Your task to perform on an android device: Open privacy settings Image 0: 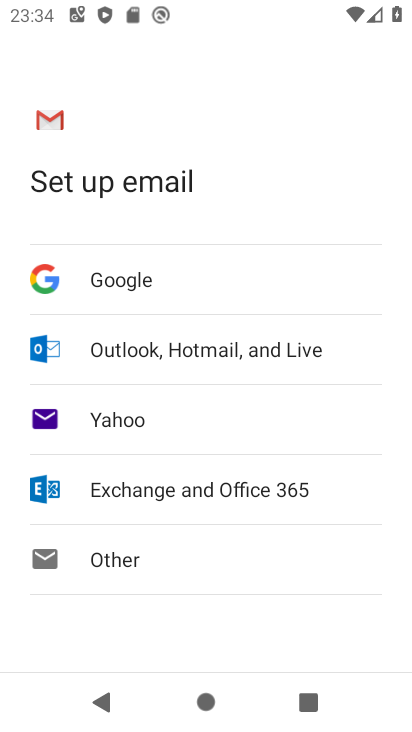
Step 0: press home button
Your task to perform on an android device: Open privacy settings Image 1: 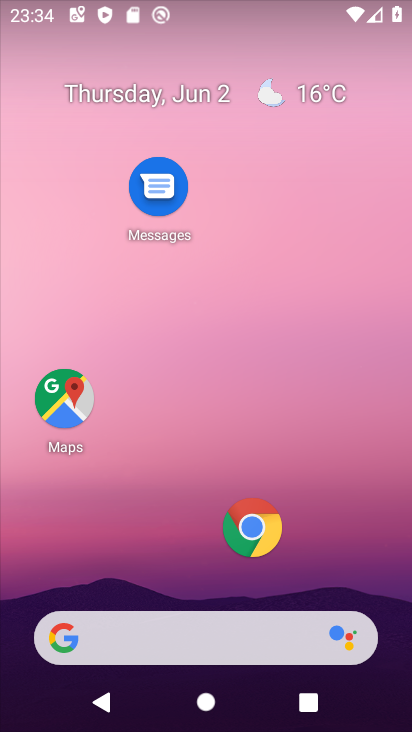
Step 1: drag from (301, 588) to (364, 45)
Your task to perform on an android device: Open privacy settings Image 2: 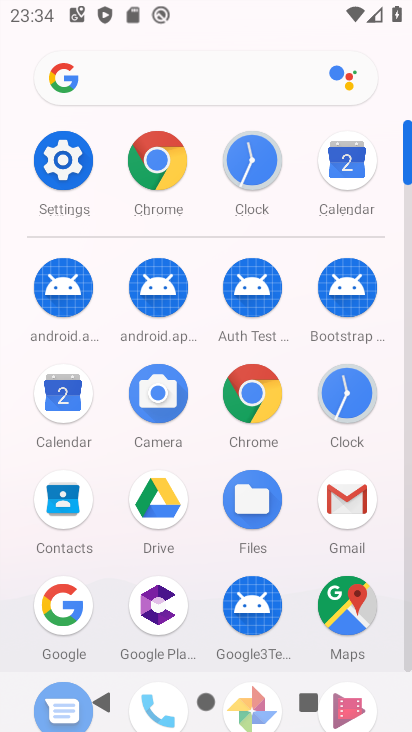
Step 2: click (59, 152)
Your task to perform on an android device: Open privacy settings Image 3: 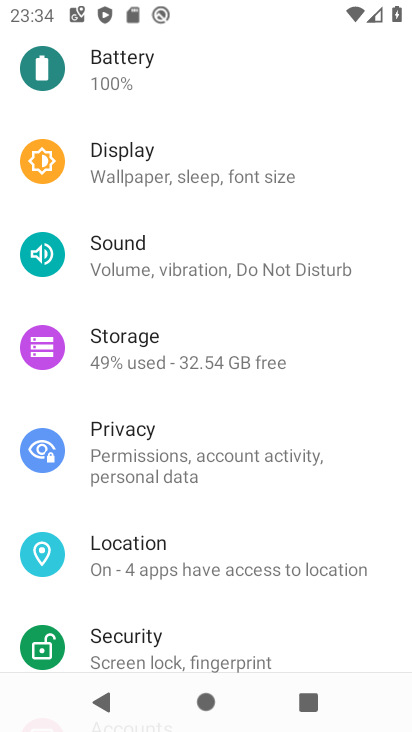
Step 3: click (163, 398)
Your task to perform on an android device: Open privacy settings Image 4: 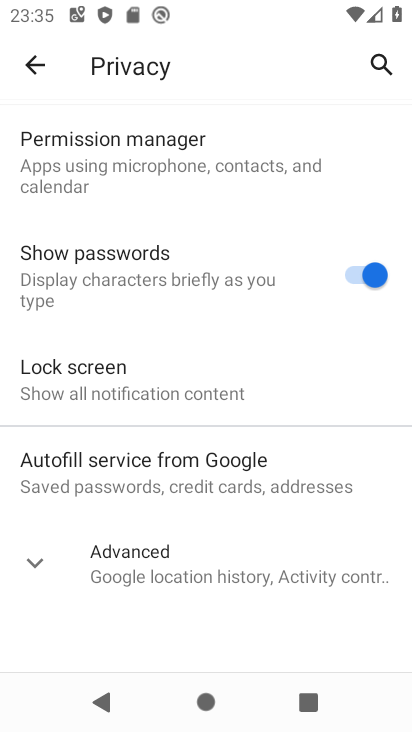
Step 4: click (36, 556)
Your task to perform on an android device: Open privacy settings Image 5: 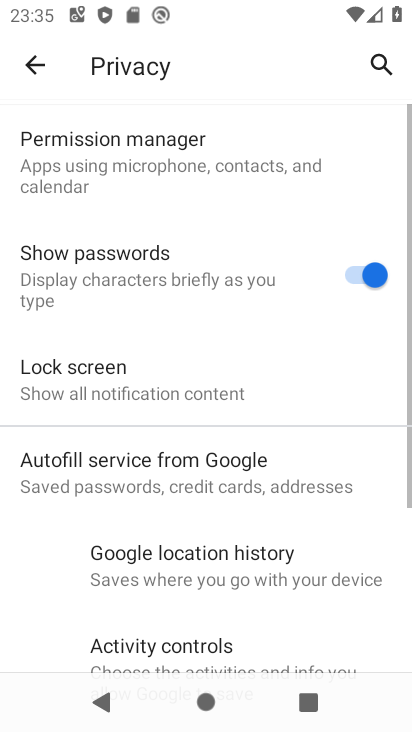
Step 5: task complete